Your task to perform on an android device: set the stopwatch Image 0: 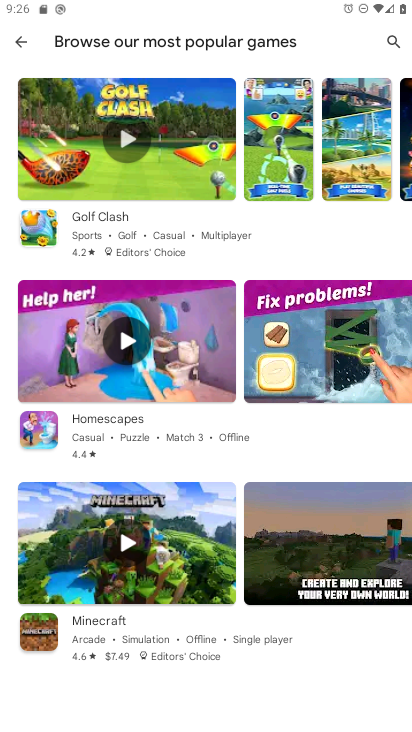
Step 0: press home button
Your task to perform on an android device: set the stopwatch Image 1: 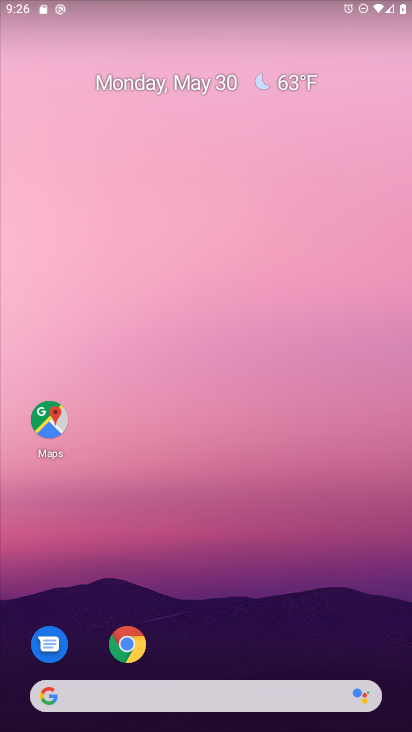
Step 1: drag from (231, 635) to (242, 55)
Your task to perform on an android device: set the stopwatch Image 2: 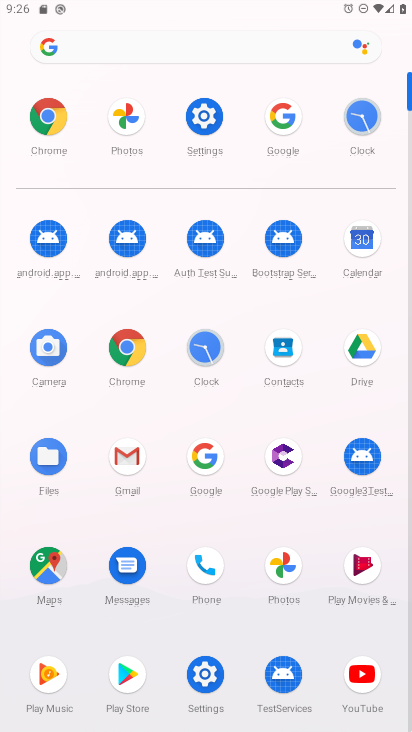
Step 2: click (205, 349)
Your task to perform on an android device: set the stopwatch Image 3: 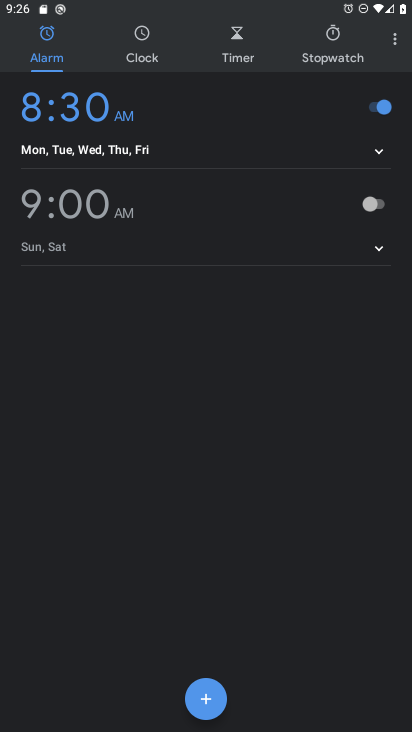
Step 3: click (343, 39)
Your task to perform on an android device: set the stopwatch Image 4: 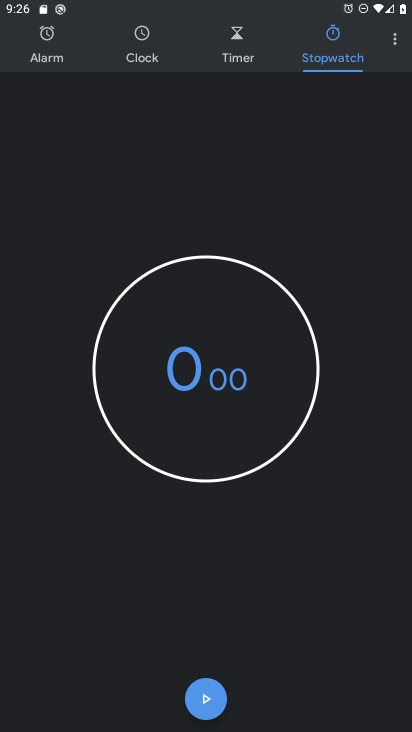
Step 4: click (208, 697)
Your task to perform on an android device: set the stopwatch Image 5: 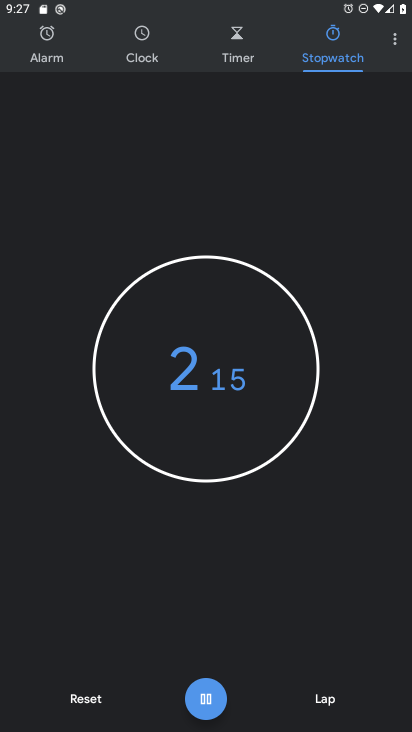
Step 5: click (208, 697)
Your task to perform on an android device: set the stopwatch Image 6: 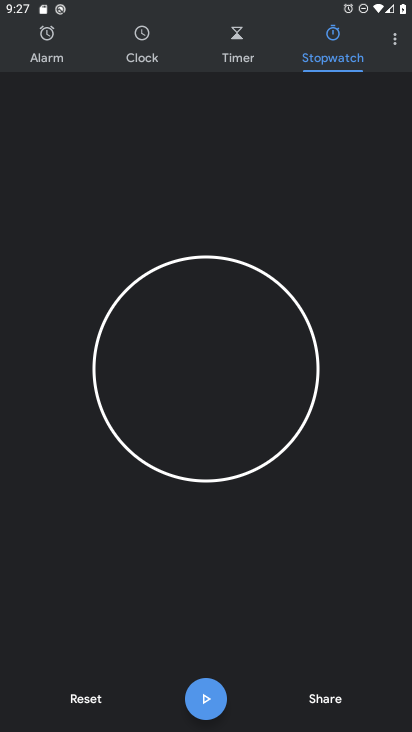
Step 6: task complete